Your task to perform on an android device: open app "VLC for Android" (install if not already installed) and enter user name: "Yves@outlook.com" and password: "internally" Image 0: 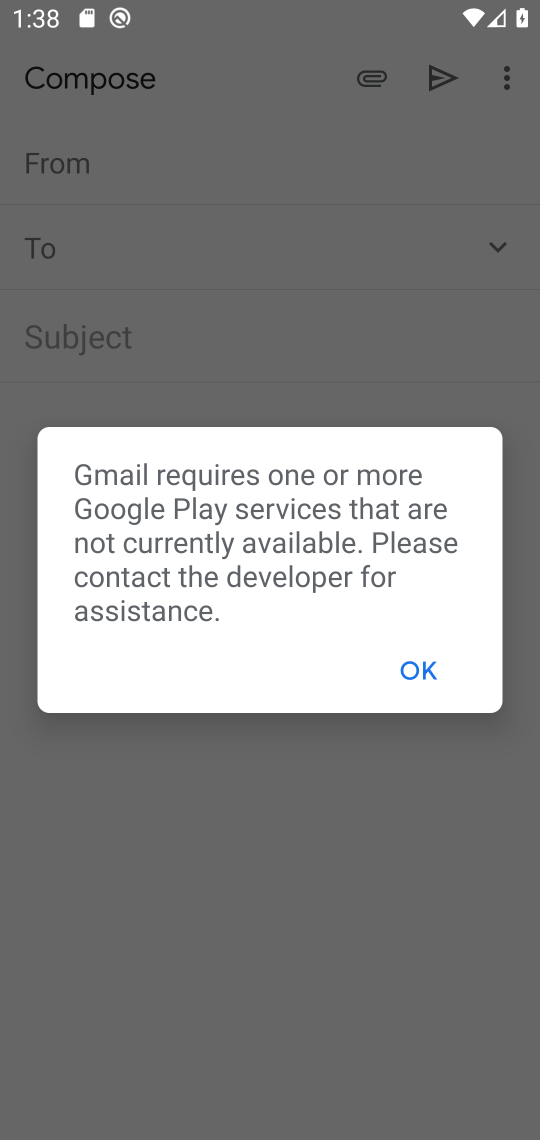
Step 0: press home button
Your task to perform on an android device: open app "VLC for Android" (install if not already installed) and enter user name: "Yves@outlook.com" and password: "internally" Image 1: 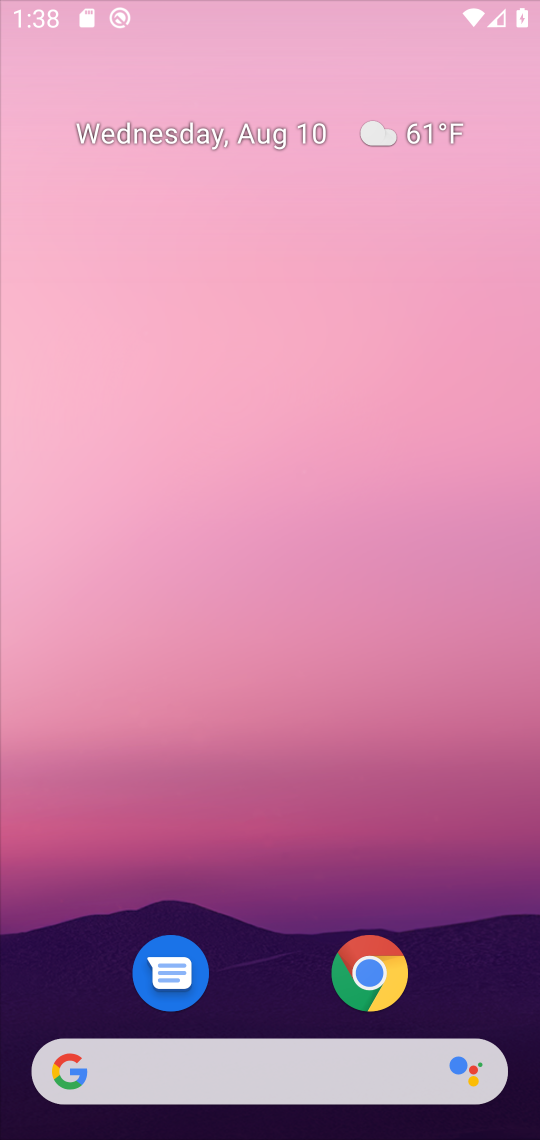
Step 1: drag from (213, 997) to (251, 186)
Your task to perform on an android device: open app "VLC for Android" (install if not already installed) and enter user name: "Yves@outlook.com" and password: "internally" Image 2: 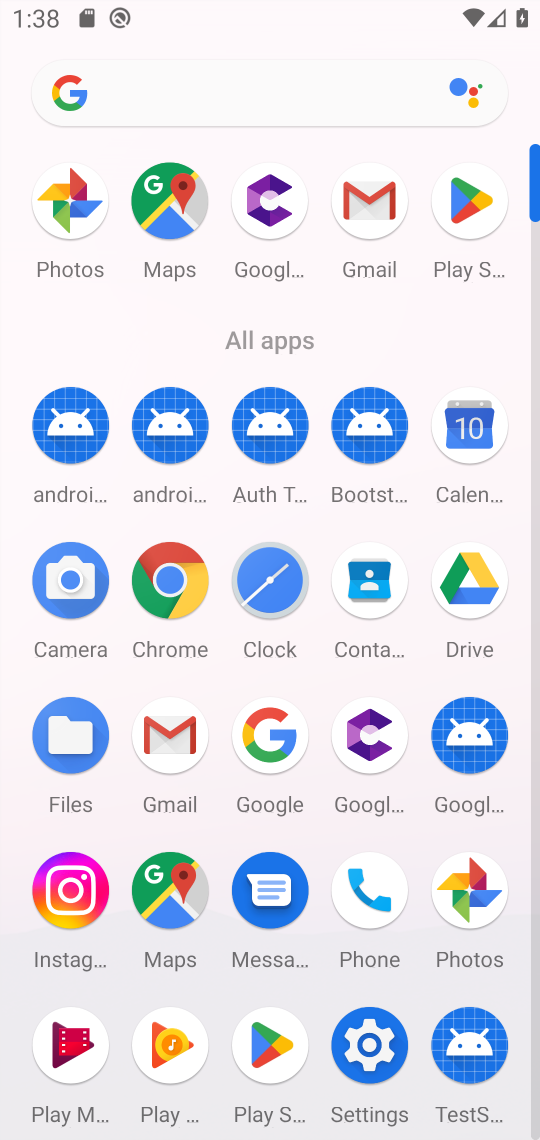
Step 2: click (462, 184)
Your task to perform on an android device: open app "VLC for Android" (install if not already installed) and enter user name: "Yves@outlook.com" and password: "internally" Image 3: 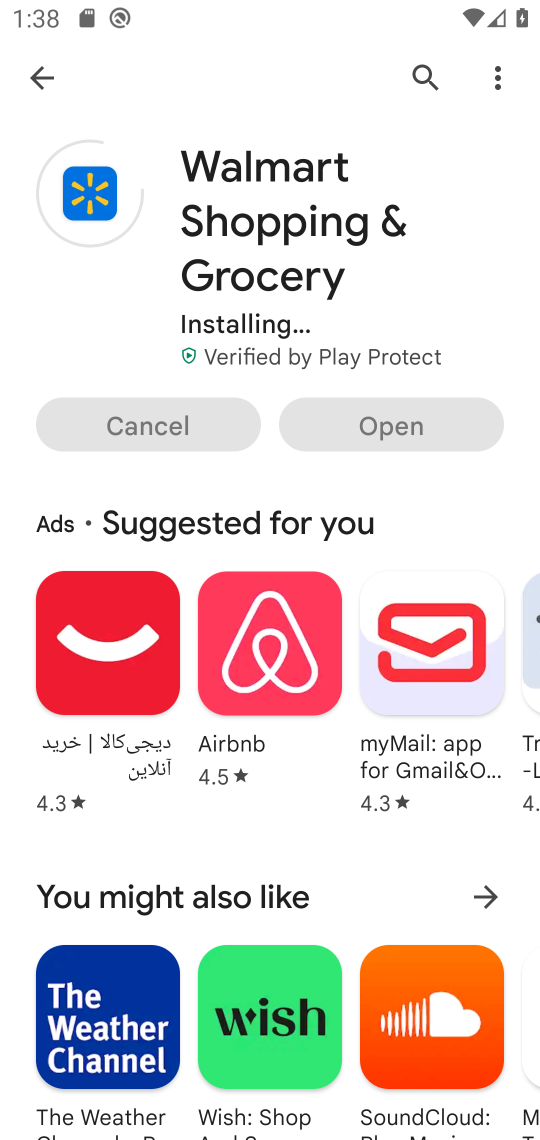
Step 3: click (58, 67)
Your task to perform on an android device: open app "VLC for Android" (install if not already installed) and enter user name: "Yves@outlook.com" and password: "internally" Image 4: 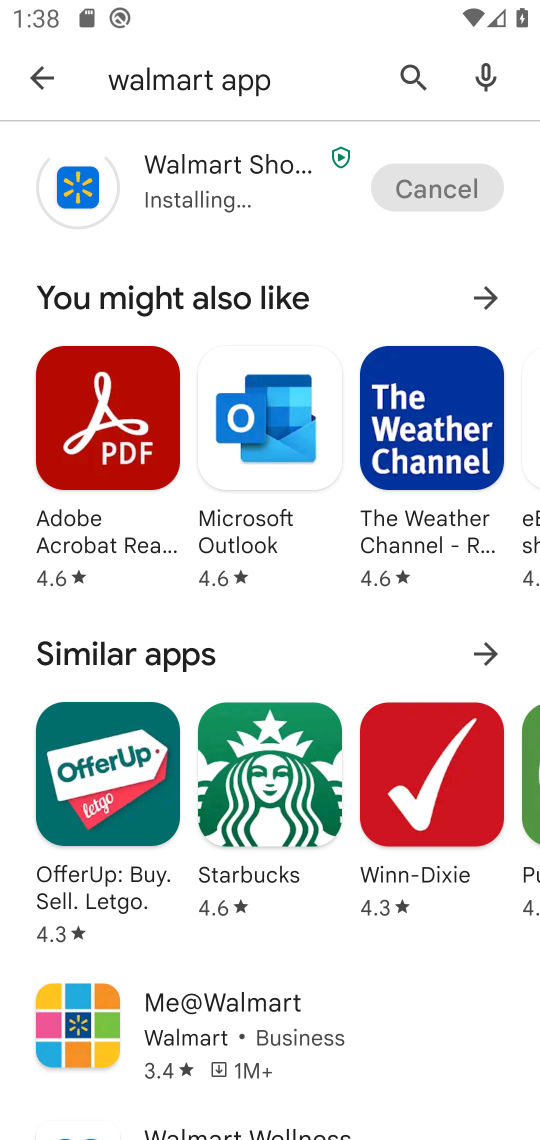
Step 4: click (41, 79)
Your task to perform on an android device: open app "VLC for Android" (install if not already installed) and enter user name: "Yves@outlook.com" and password: "internally" Image 5: 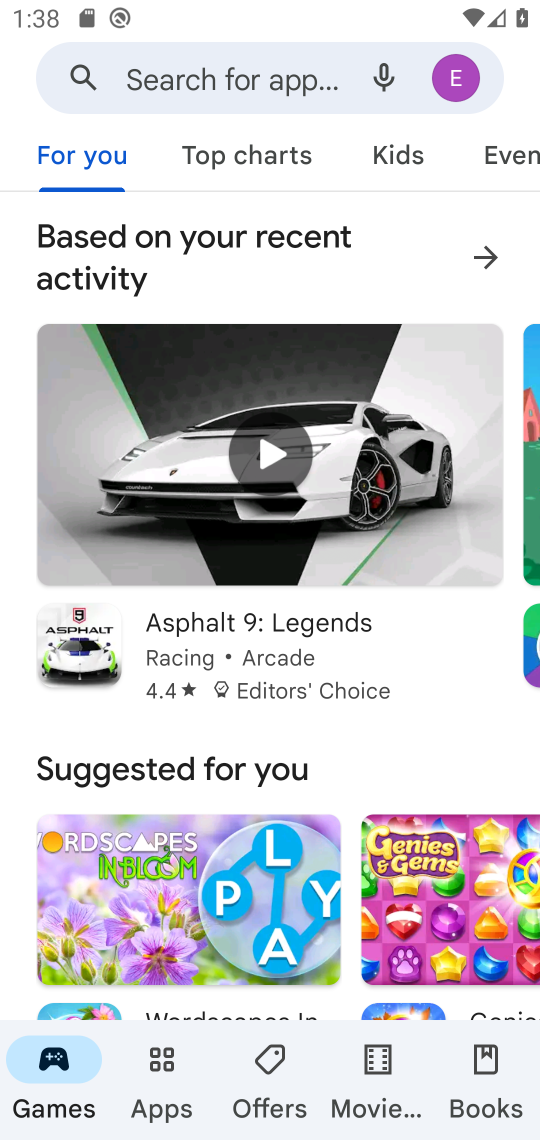
Step 5: click (136, 76)
Your task to perform on an android device: open app "VLC for Android" (install if not already installed) and enter user name: "Yves@outlook.com" and password: "internally" Image 6: 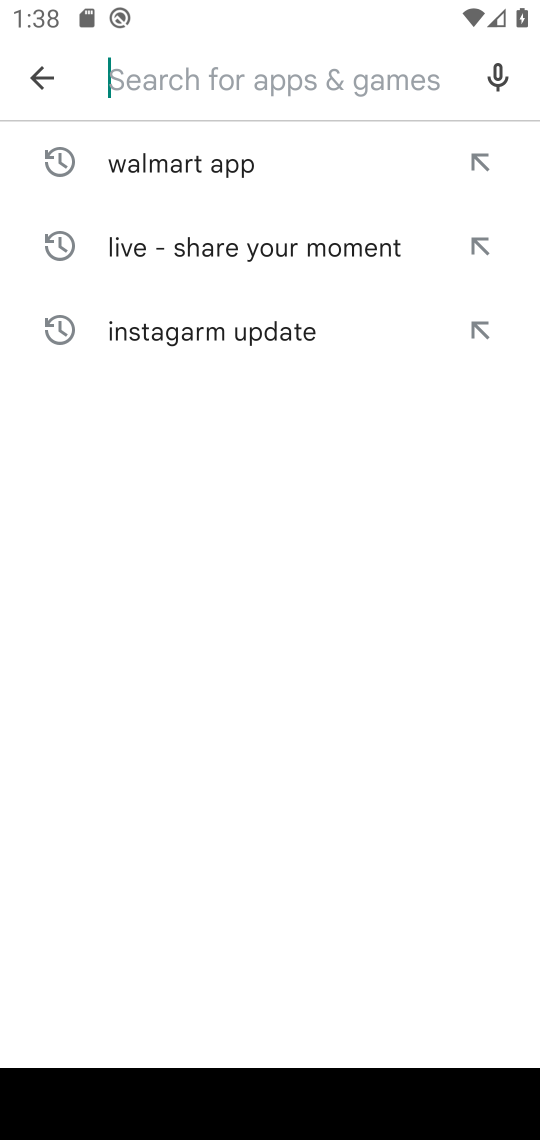
Step 6: type "vlc for android "
Your task to perform on an android device: open app "VLC for Android" (install if not already installed) and enter user name: "Yves@outlook.com" and password: "internally" Image 7: 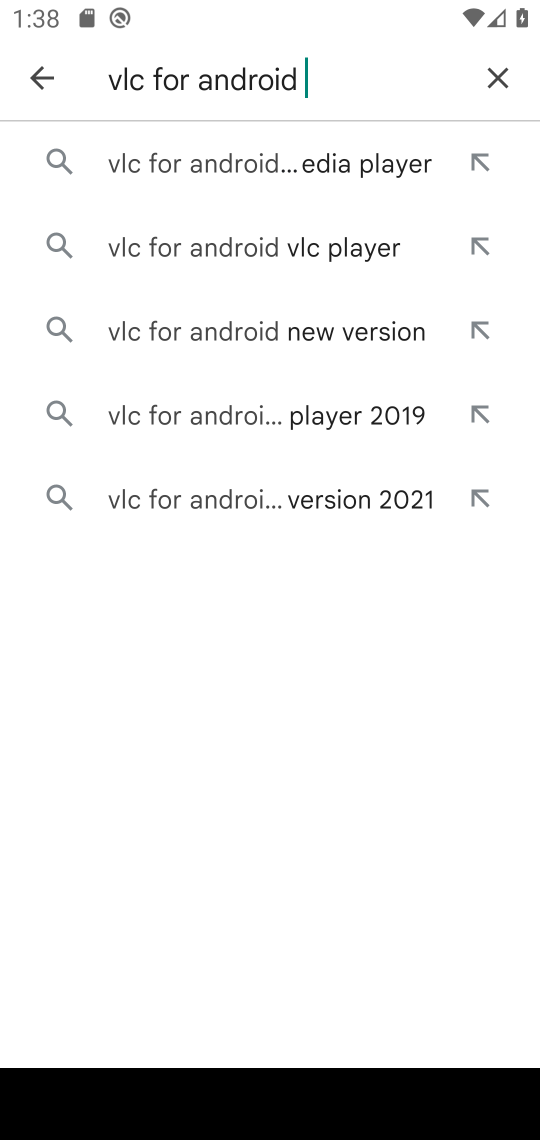
Step 7: click (226, 184)
Your task to perform on an android device: open app "VLC for Android" (install if not already installed) and enter user name: "Yves@outlook.com" and password: "internally" Image 8: 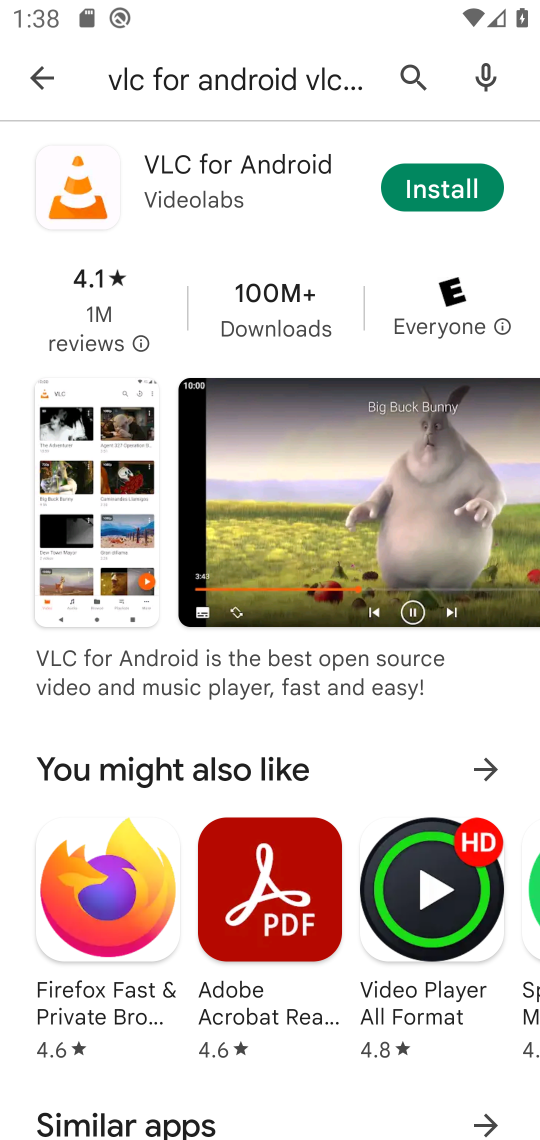
Step 8: click (442, 194)
Your task to perform on an android device: open app "VLC for Android" (install if not already installed) and enter user name: "Yves@outlook.com" and password: "internally" Image 9: 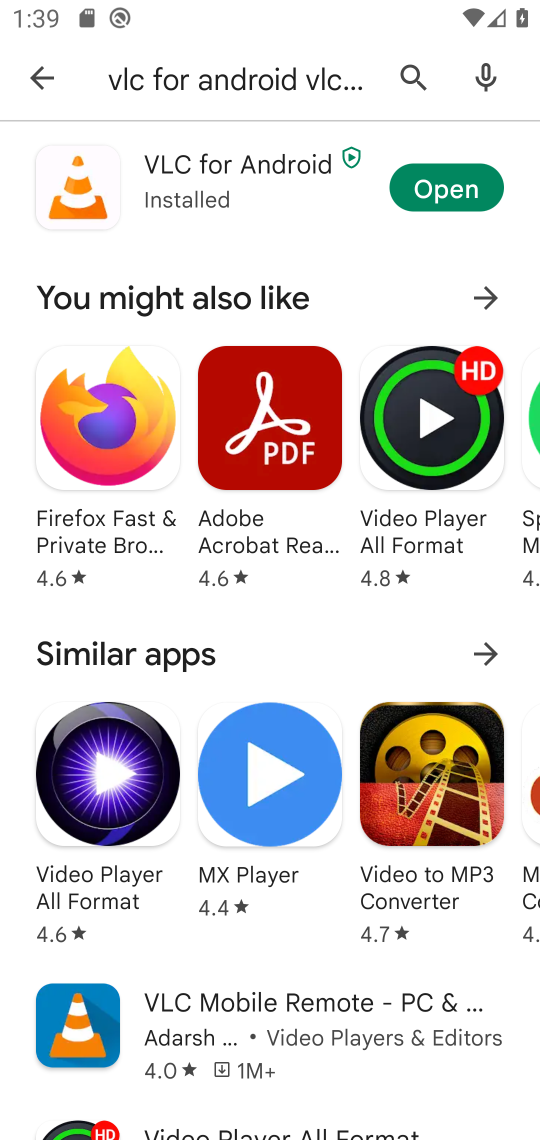
Step 9: click (415, 179)
Your task to perform on an android device: open app "VLC for Android" (install if not already installed) and enter user name: "Yves@outlook.com" and password: "internally" Image 10: 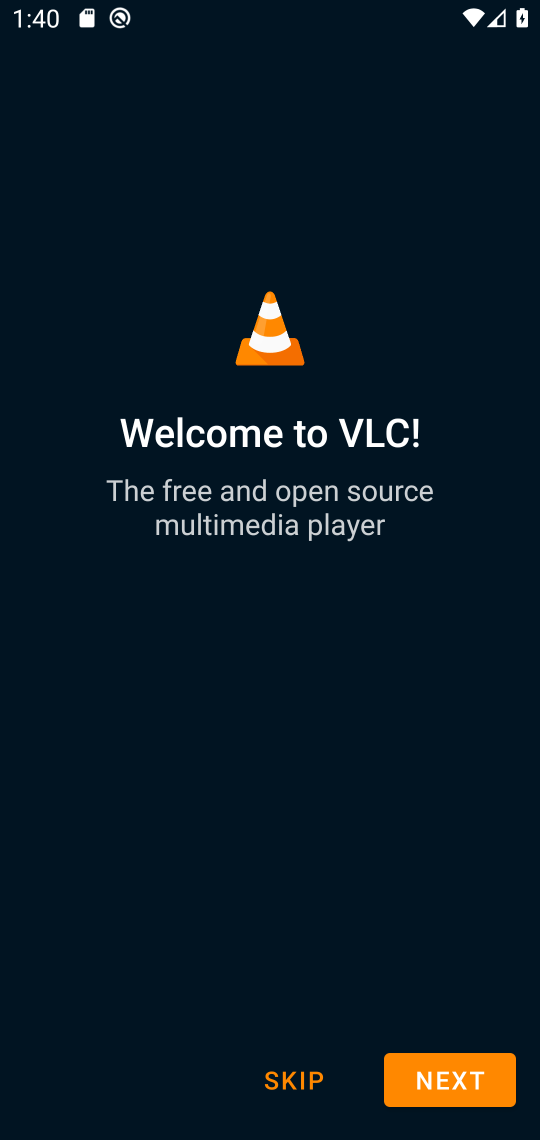
Step 10: click (447, 1064)
Your task to perform on an android device: open app "VLC for Android" (install if not already installed) and enter user name: "Yves@outlook.com" and password: "internally" Image 11: 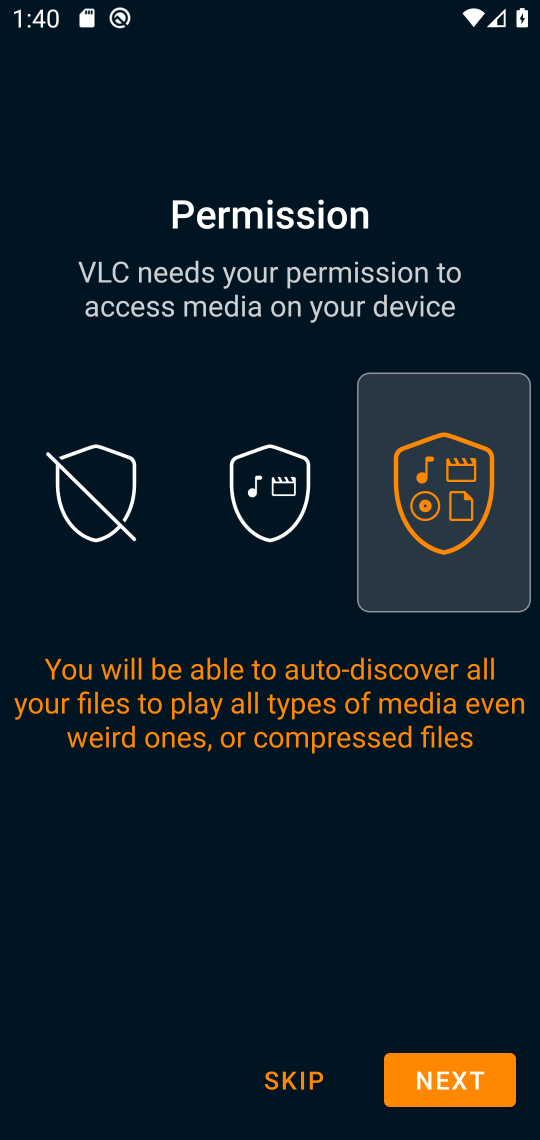
Step 11: click (447, 1064)
Your task to perform on an android device: open app "VLC for Android" (install if not already installed) and enter user name: "Yves@outlook.com" and password: "internally" Image 12: 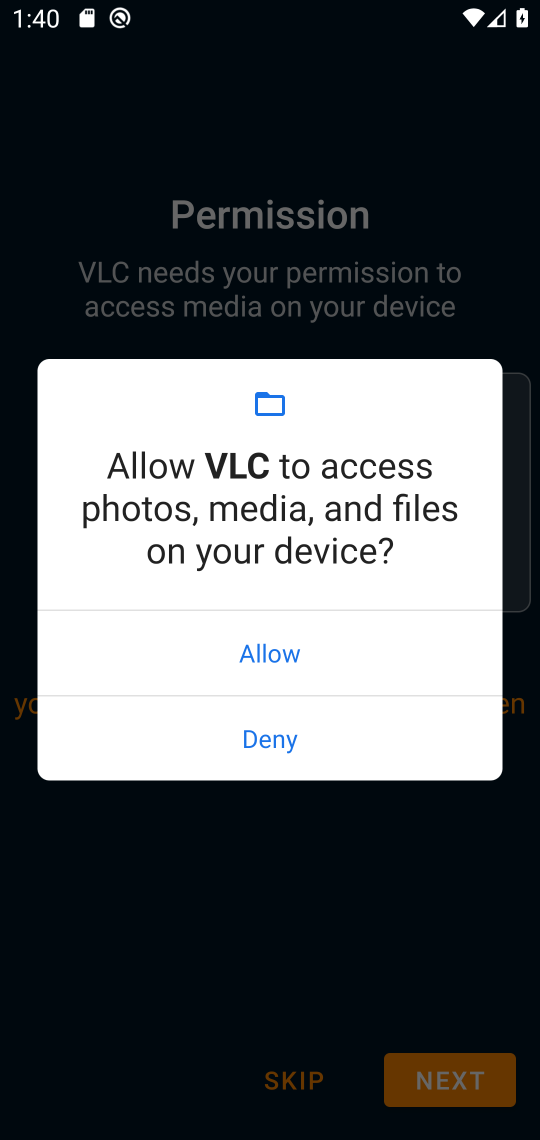
Step 12: click (306, 632)
Your task to perform on an android device: open app "VLC for Android" (install if not already installed) and enter user name: "Yves@outlook.com" and password: "internally" Image 13: 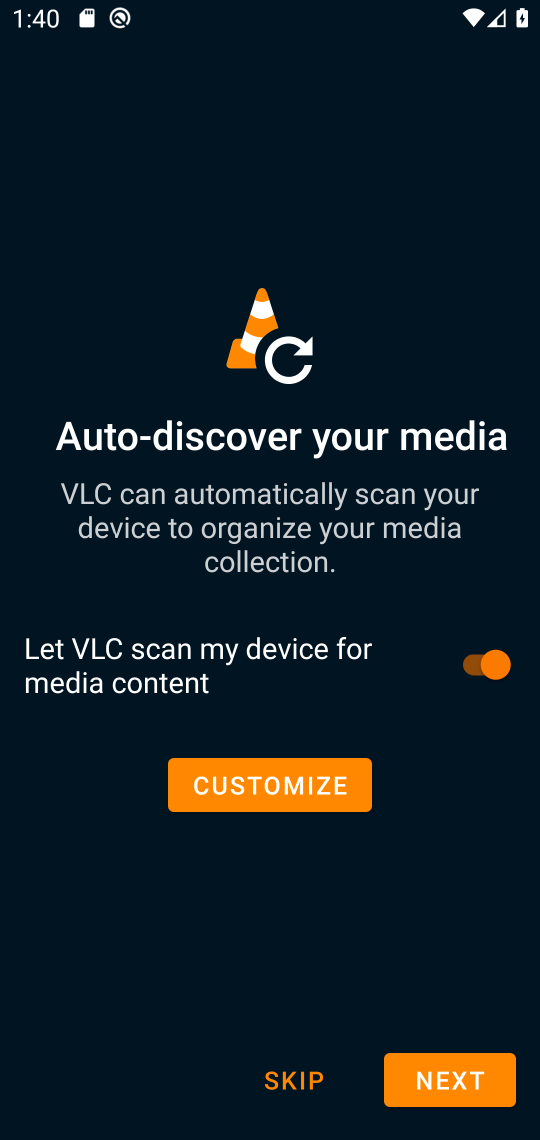
Step 13: click (414, 1088)
Your task to perform on an android device: open app "VLC for Android" (install if not already installed) and enter user name: "Yves@outlook.com" and password: "internally" Image 14: 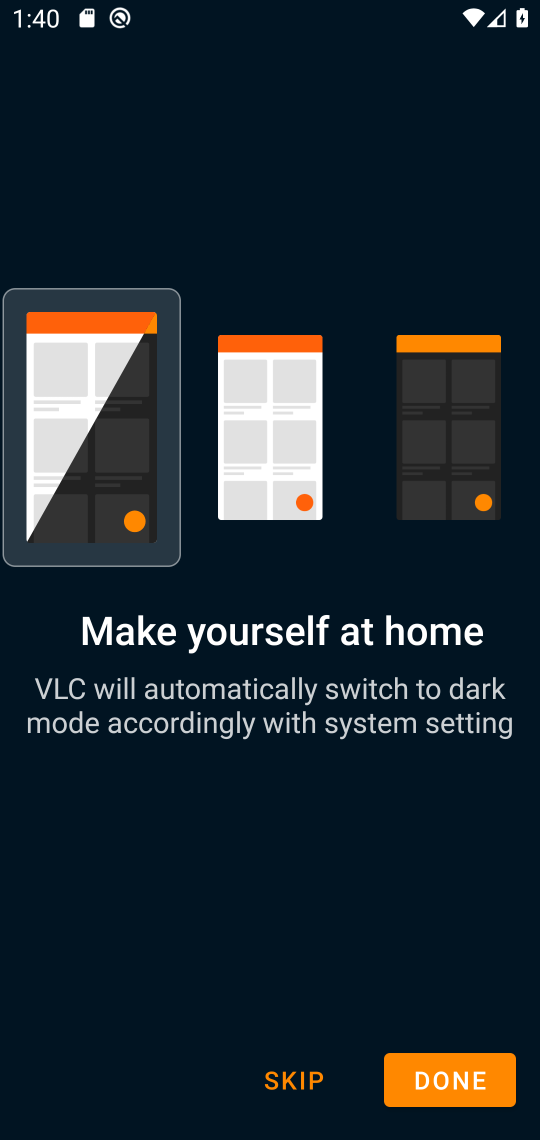
Step 14: click (414, 1088)
Your task to perform on an android device: open app "VLC for Android" (install if not already installed) and enter user name: "Yves@outlook.com" and password: "internally" Image 15: 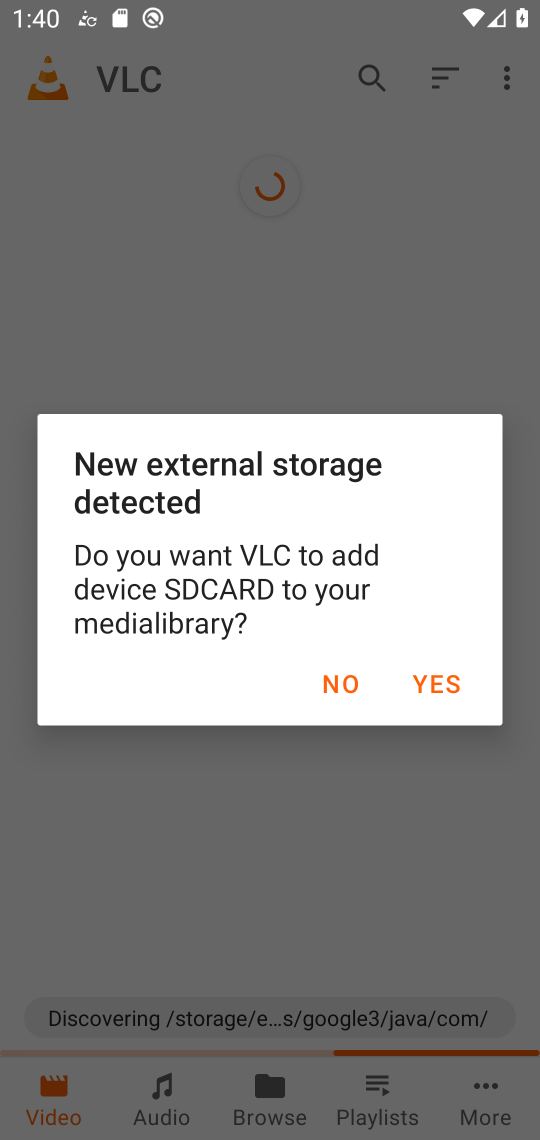
Step 15: click (451, 652)
Your task to perform on an android device: open app "VLC for Android" (install if not already installed) and enter user name: "Yves@outlook.com" and password: "internally" Image 16: 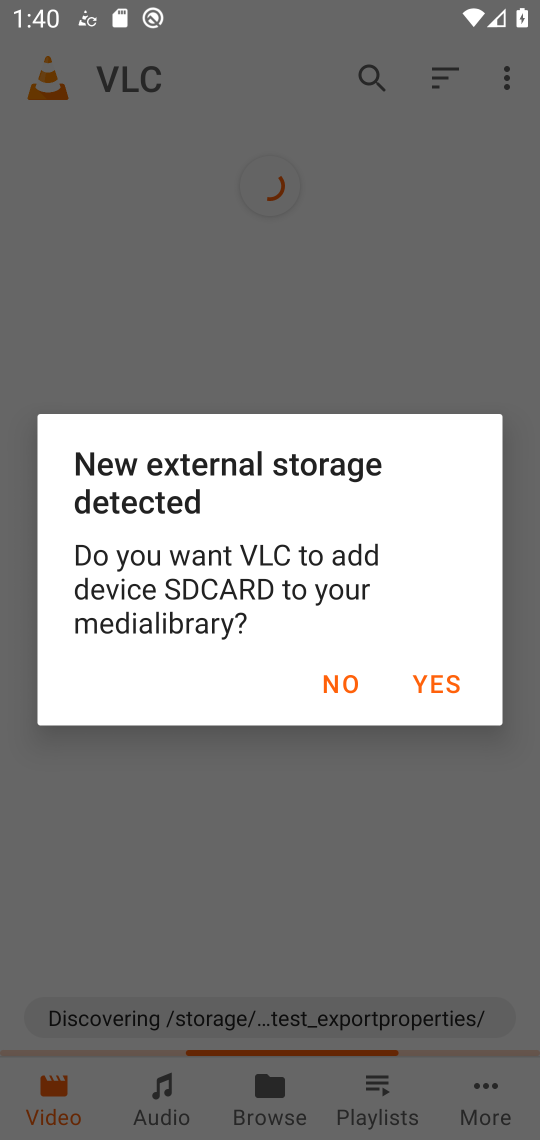
Step 16: click (445, 669)
Your task to perform on an android device: open app "VLC for Android" (install if not already installed) and enter user name: "Yves@outlook.com" and password: "internally" Image 17: 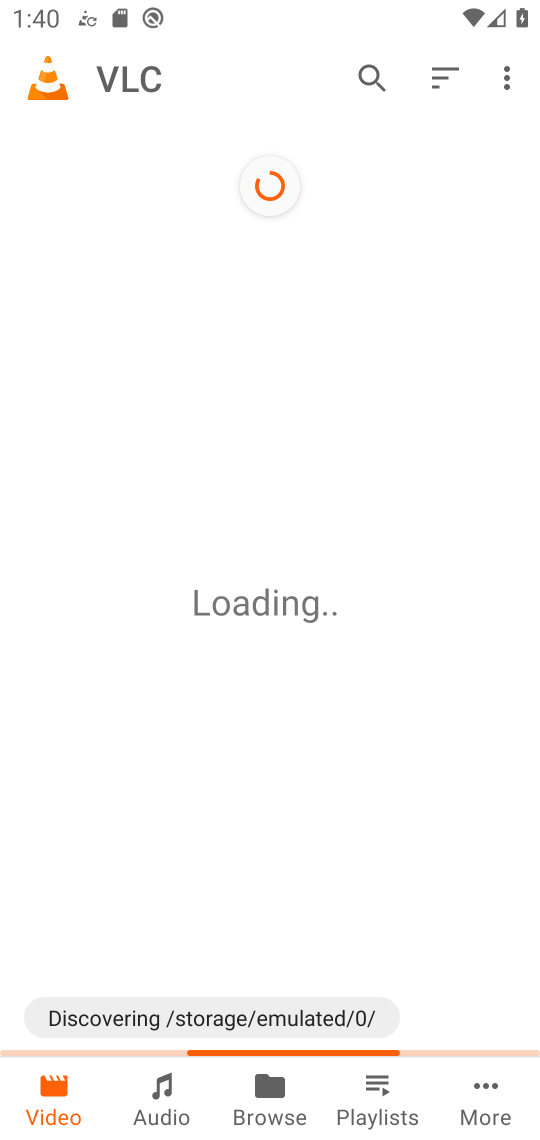
Step 17: click (478, 1097)
Your task to perform on an android device: open app "VLC for Android" (install if not already installed) and enter user name: "Yves@outlook.com" and password: "internally" Image 18: 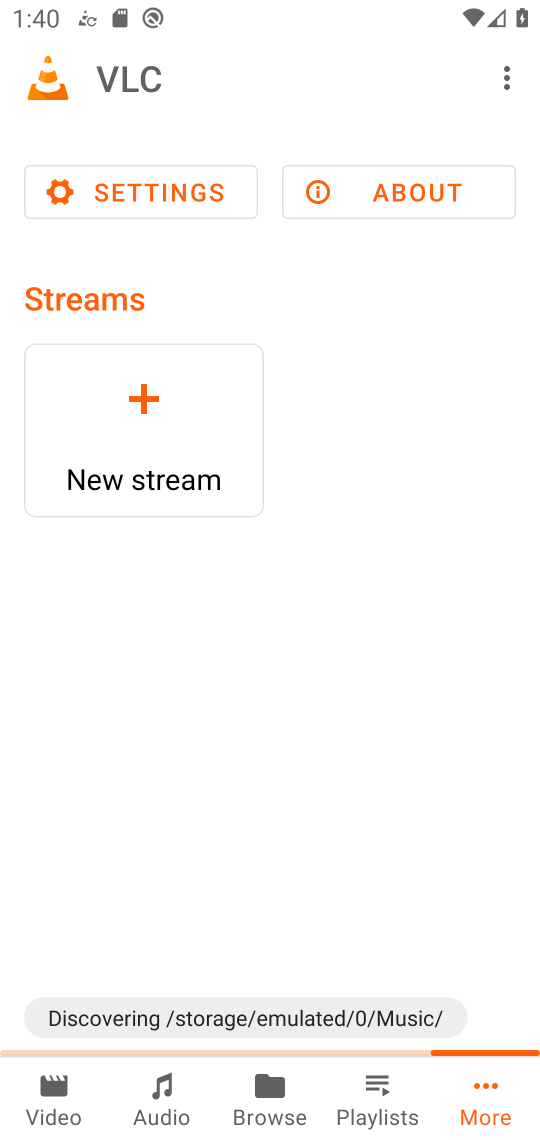
Step 18: click (156, 400)
Your task to perform on an android device: open app "VLC for Android" (install if not already installed) and enter user name: "Yves@outlook.com" and password: "internally" Image 19: 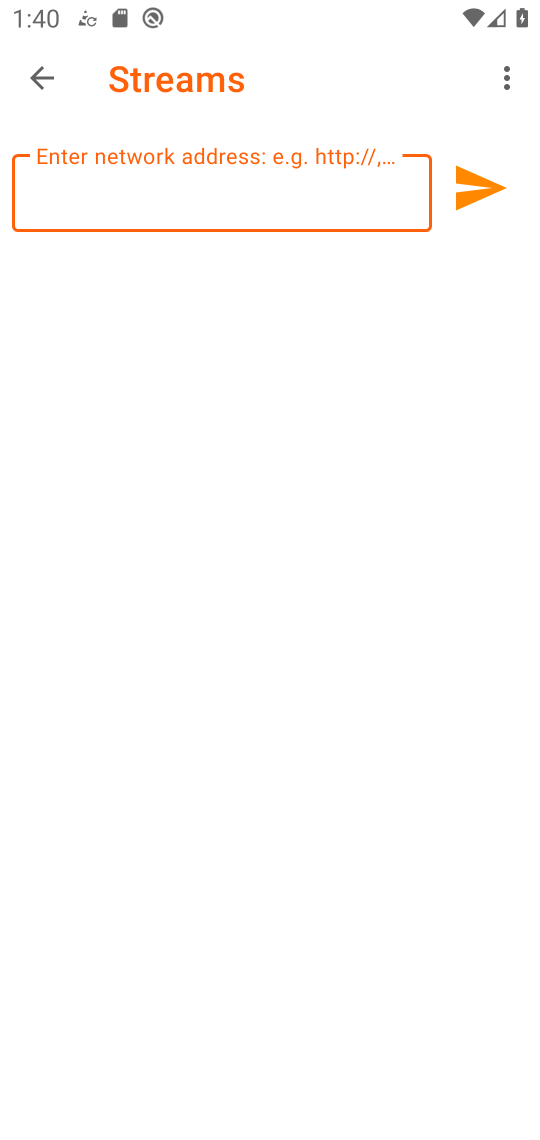
Step 19: click (296, 196)
Your task to perform on an android device: open app "VLC for Android" (install if not already installed) and enter user name: "Yves@outlook.com" and password: "internally" Image 20: 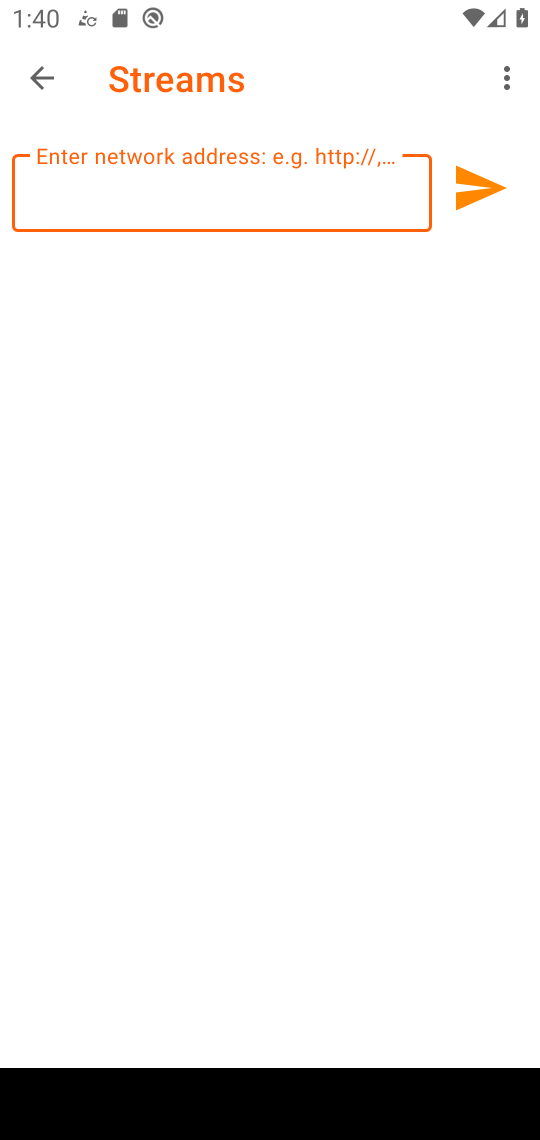
Step 20: type "Yves@outlook.com "
Your task to perform on an android device: open app "VLC for Android" (install if not already installed) and enter user name: "Yves@outlook.com" and password: "internally" Image 21: 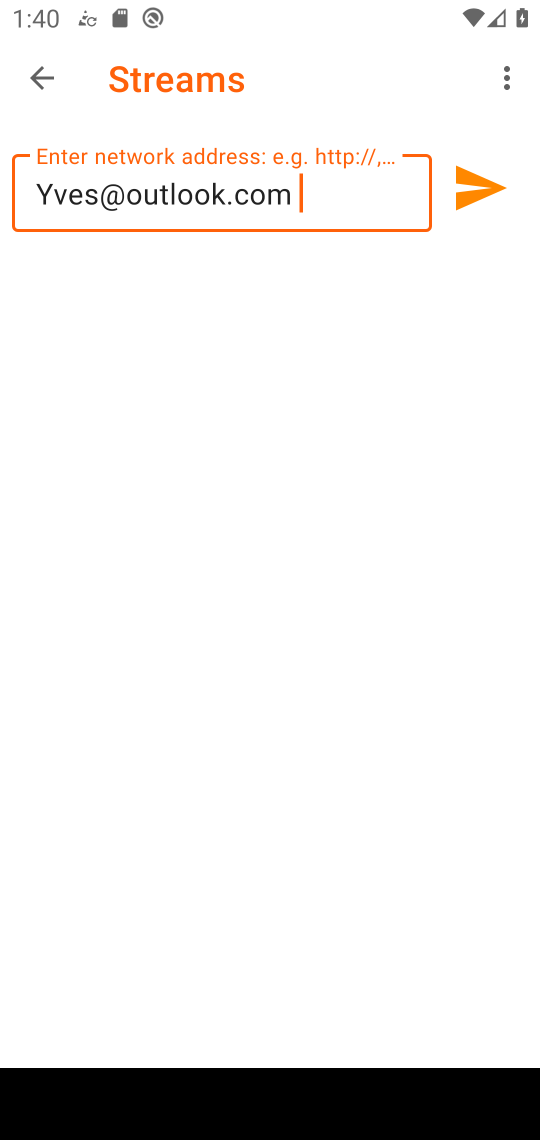
Step 21: click (462, 184)
Your task to perform on an android device: open app "VLC for Android" (install if not already installed) and enter user name: "Yves@outlook.com" and password: "internally" Image 22: 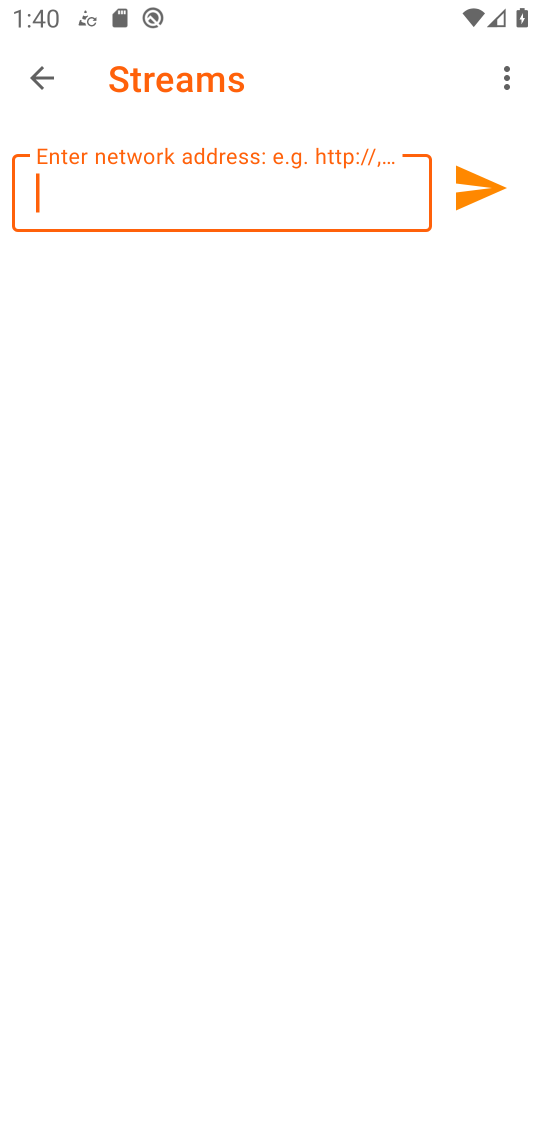
Step 22: click (330, 179)
Your task to perform on an android device: open app "VLC for Android" (install if not already installed) and enter user name: "Yves@outlook.com" and password: "internally" Image 23: 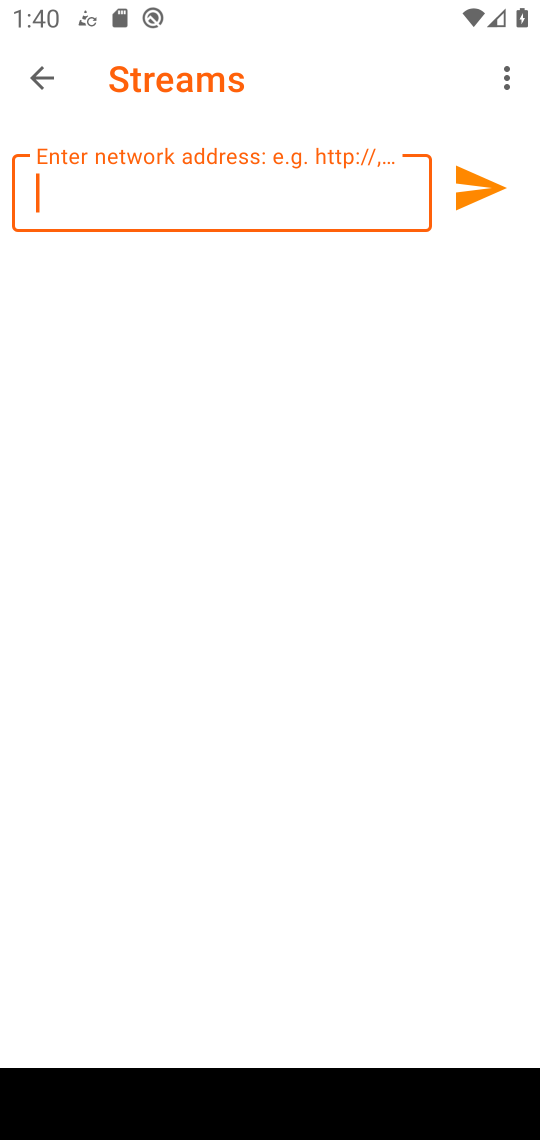
Step 23: task complete